Your task to perform on an android device: Go to location settings Image 0: 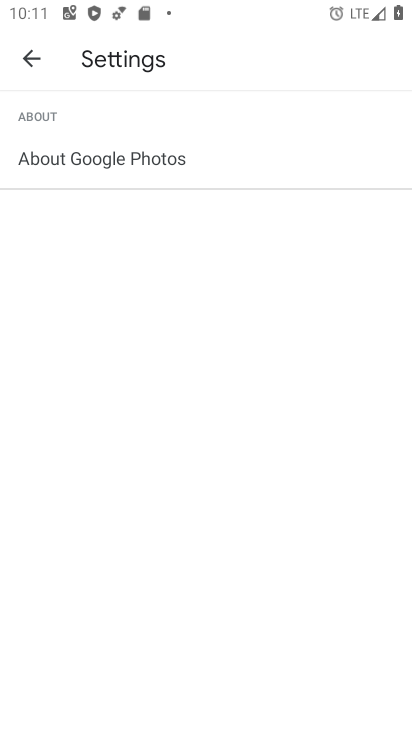
Step 0: press home button
Your task to perform on an android device: Go to location settings Image 1: 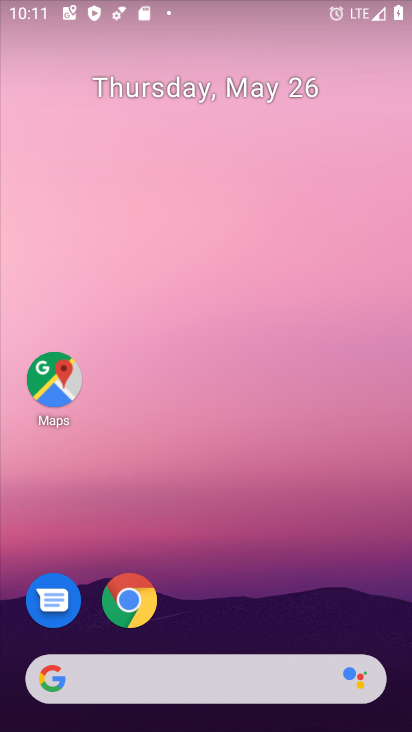
Step 1: drag from (317, 563) to (338, 96)
Your task to perform on an android device: Go to location settings Image 2: 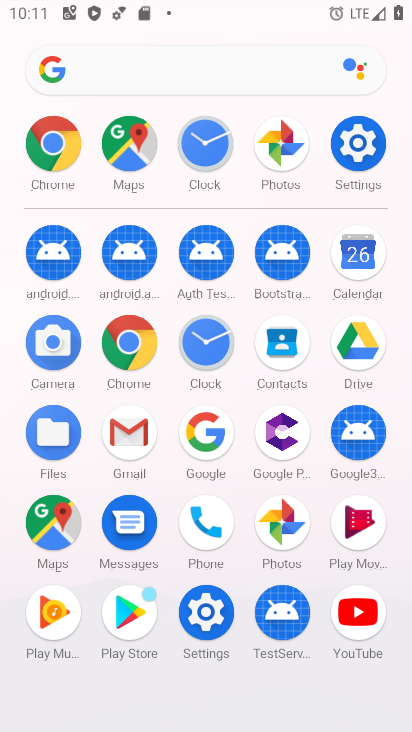
Step 2: click (366, 139)
Your task to perform on an android device: Go to location settings Image 3: 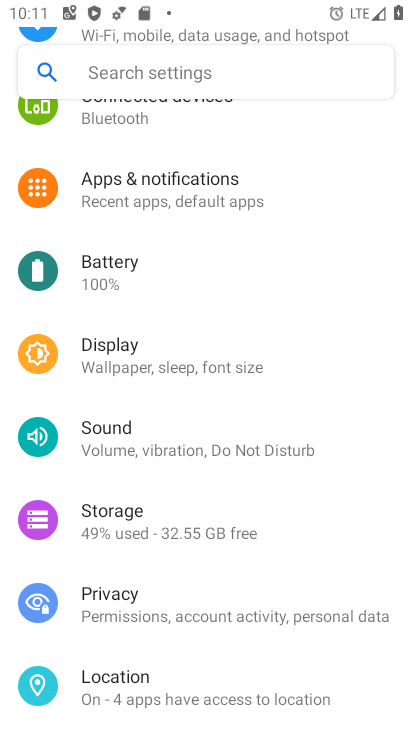
Step 3: click (193, 683)
Your task to perform on an android device: Go to location settings Image 4: 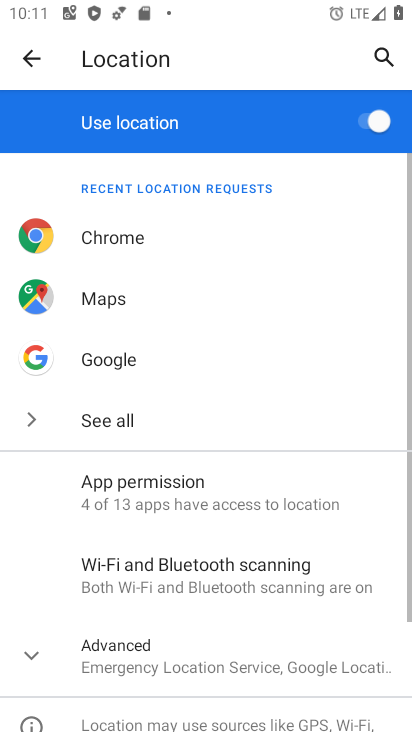
Step 4: task complete